Your task to perform on an android device: Add usb-a to the cart on walmart.com Image 0: 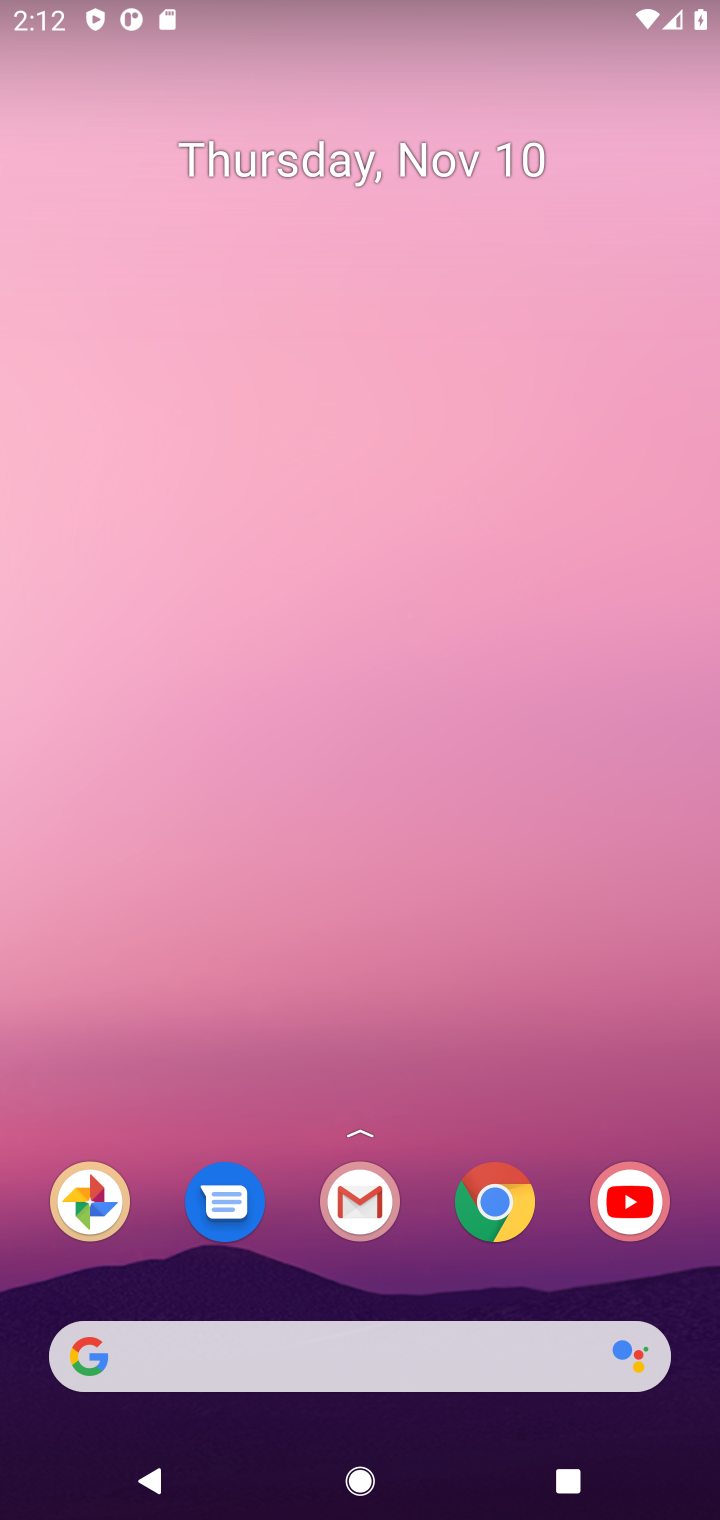
Step 0: click (377, 92)
Your task to perform on an android device: Add usb-a to the cart on walmart.com Image 1: 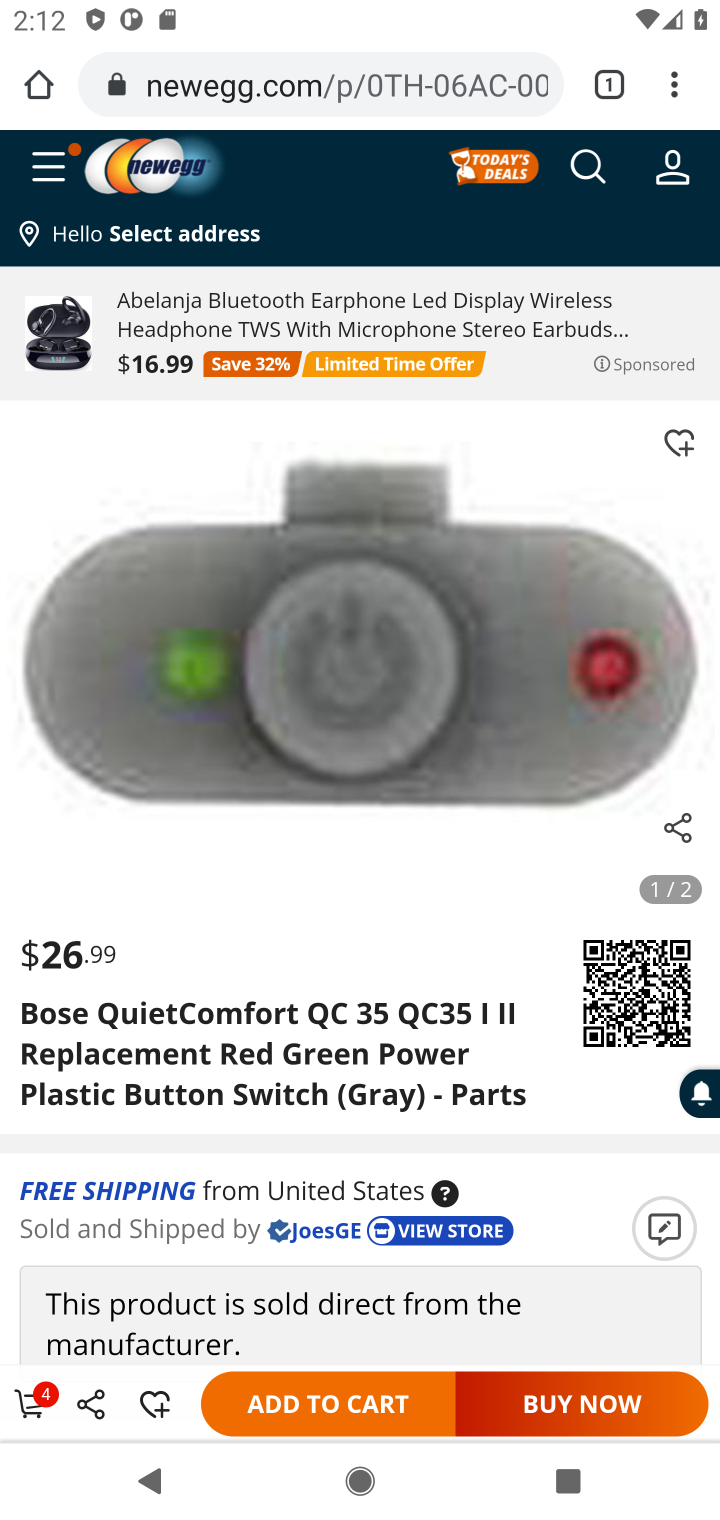
Step 1: click (418, 76)
Your task to perform on an android device: Add usb-a to the cart on walmart.com Image 2: 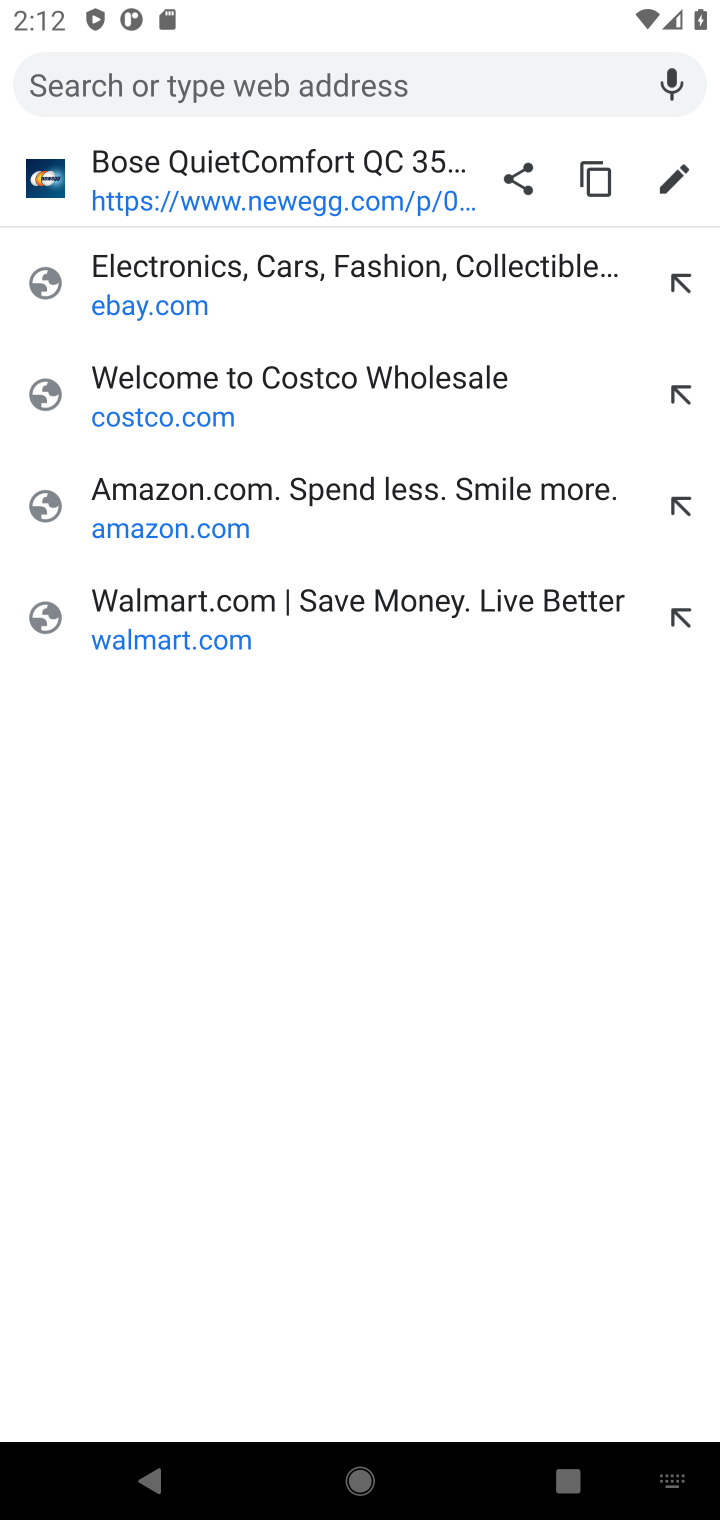
Step 2: click (343, 615)
Your task to perform on an android device: Add usb-a to the cart on walmart.com Image 3: 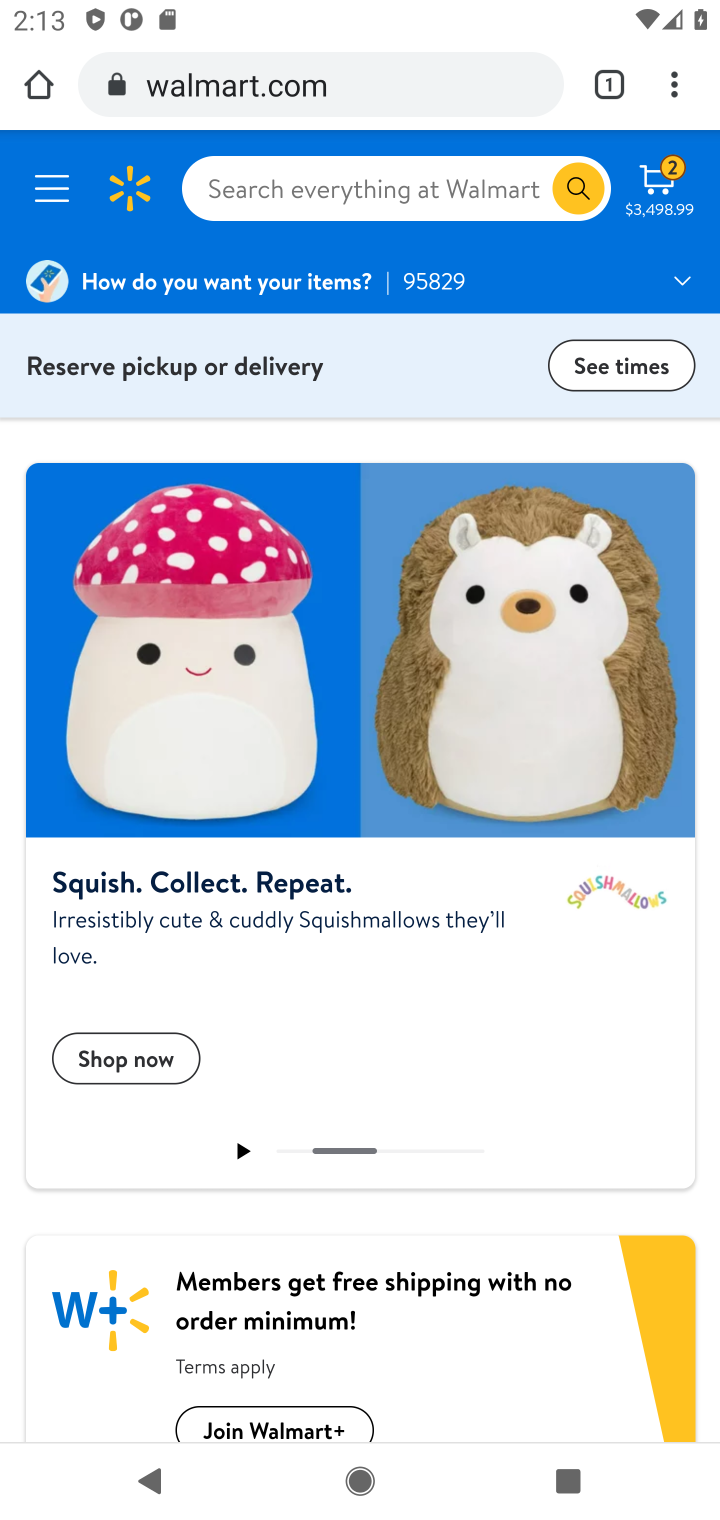
Step 3: click (512, 169)
Your task to perform on an android device: Add usb-a to the cart on walmart.com Image 4: 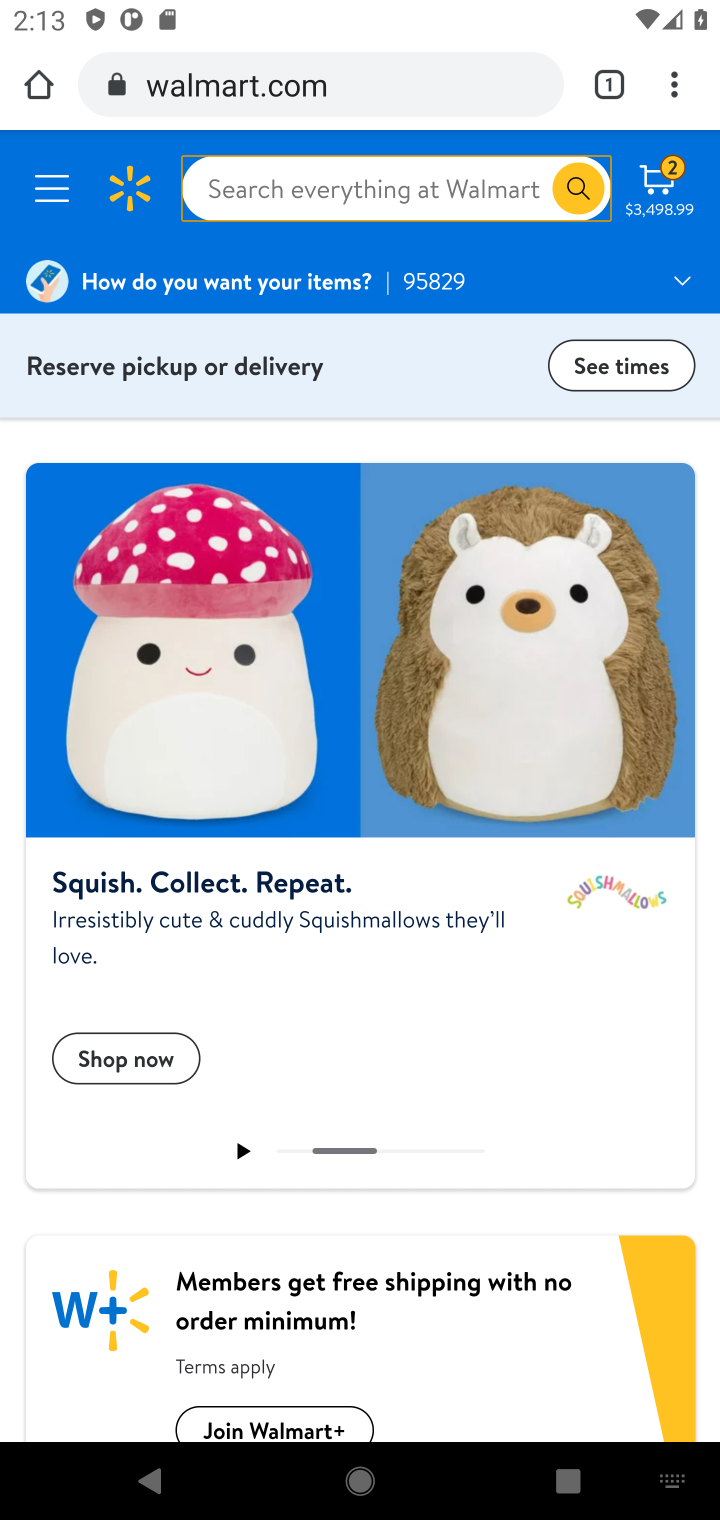
Step 4: type "usb-a "
Your task to perform on an android device: Add usb-a to the cart on walmart.com Image 5: 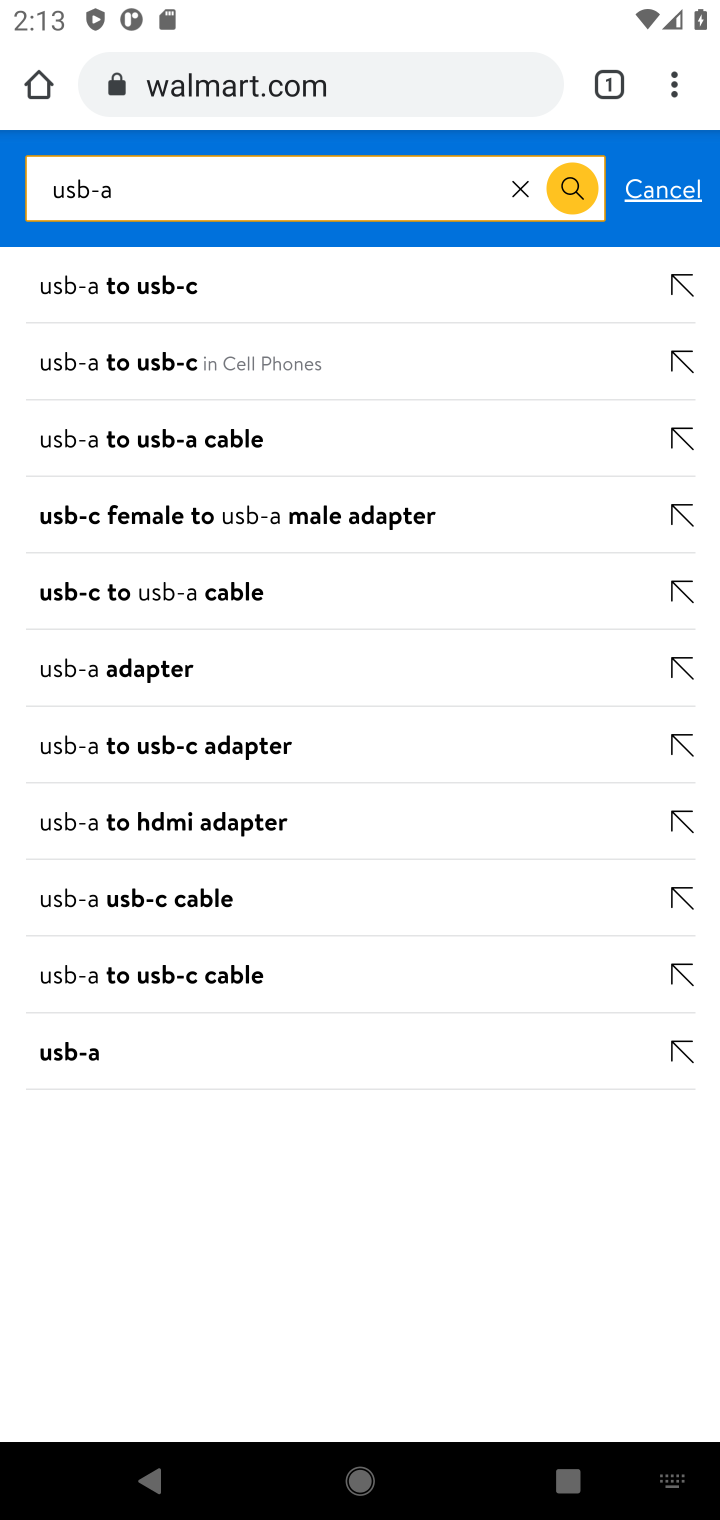
Step 5: click (91, 1037)
Your task to perform on an android device: Add usb-a to the cart on walmart.com Image 6: 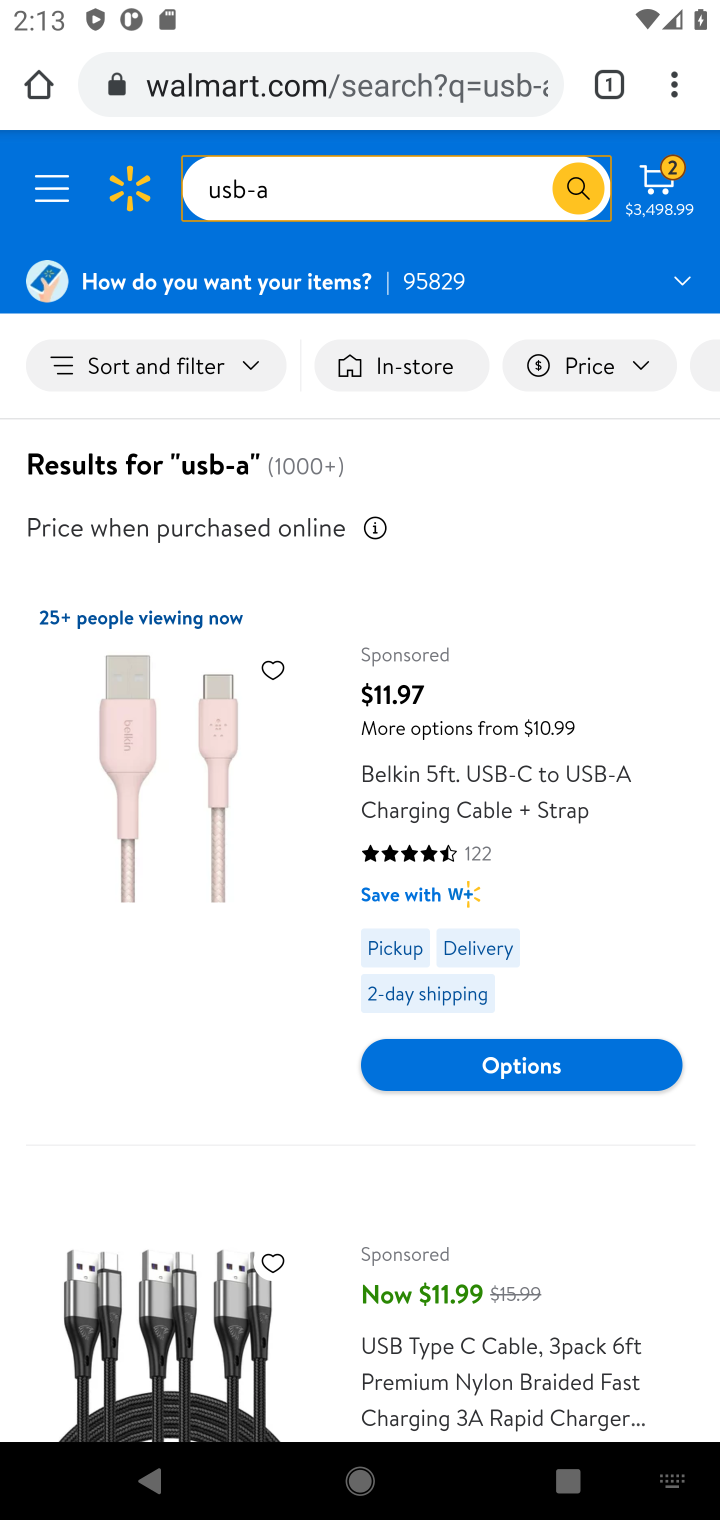
Step 6: click (198, 850)
Your task to perform on an android device: Add usb-a to the cart on walmart.com Image 7: 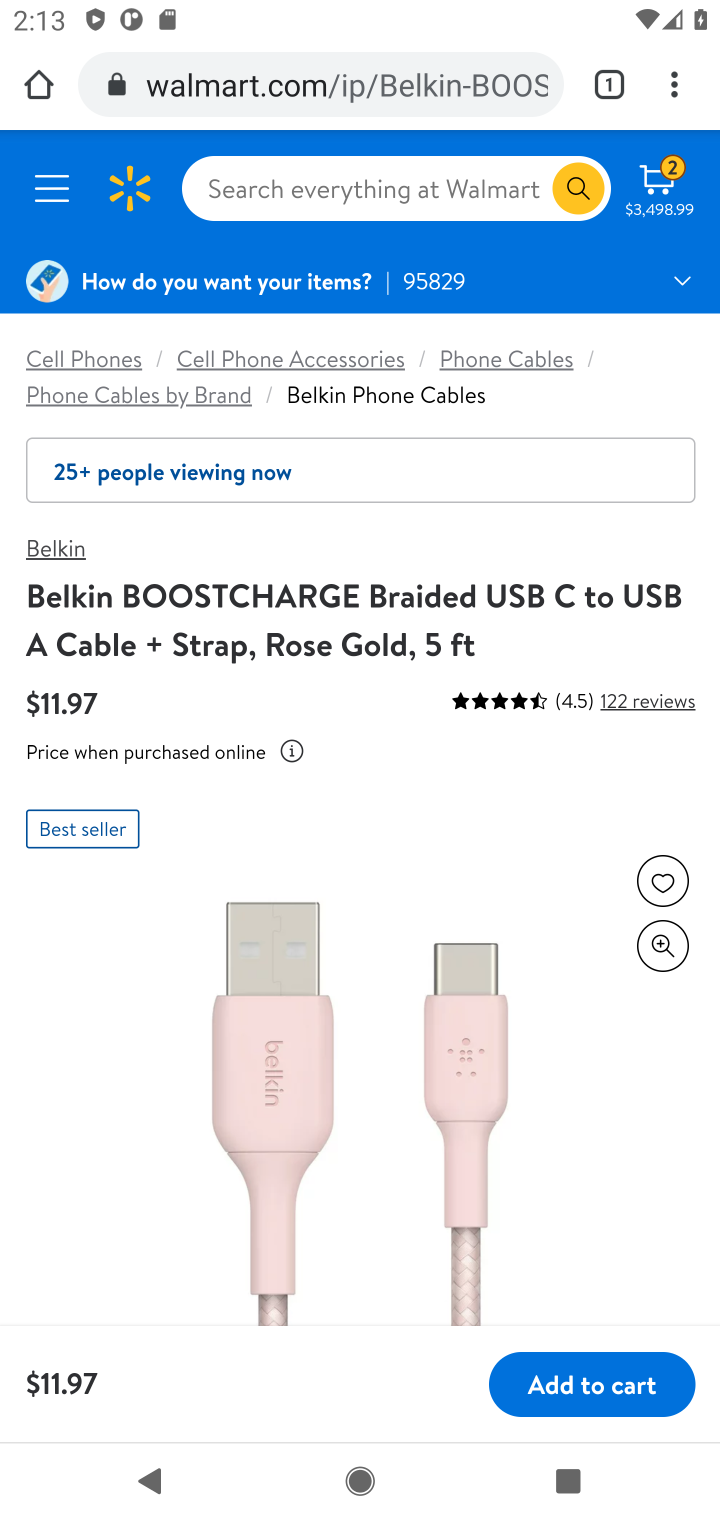
Step 7: click (599, 1396)
Your task to perform on an android device: Add usb-a to the cart on walmart.com Image 8: 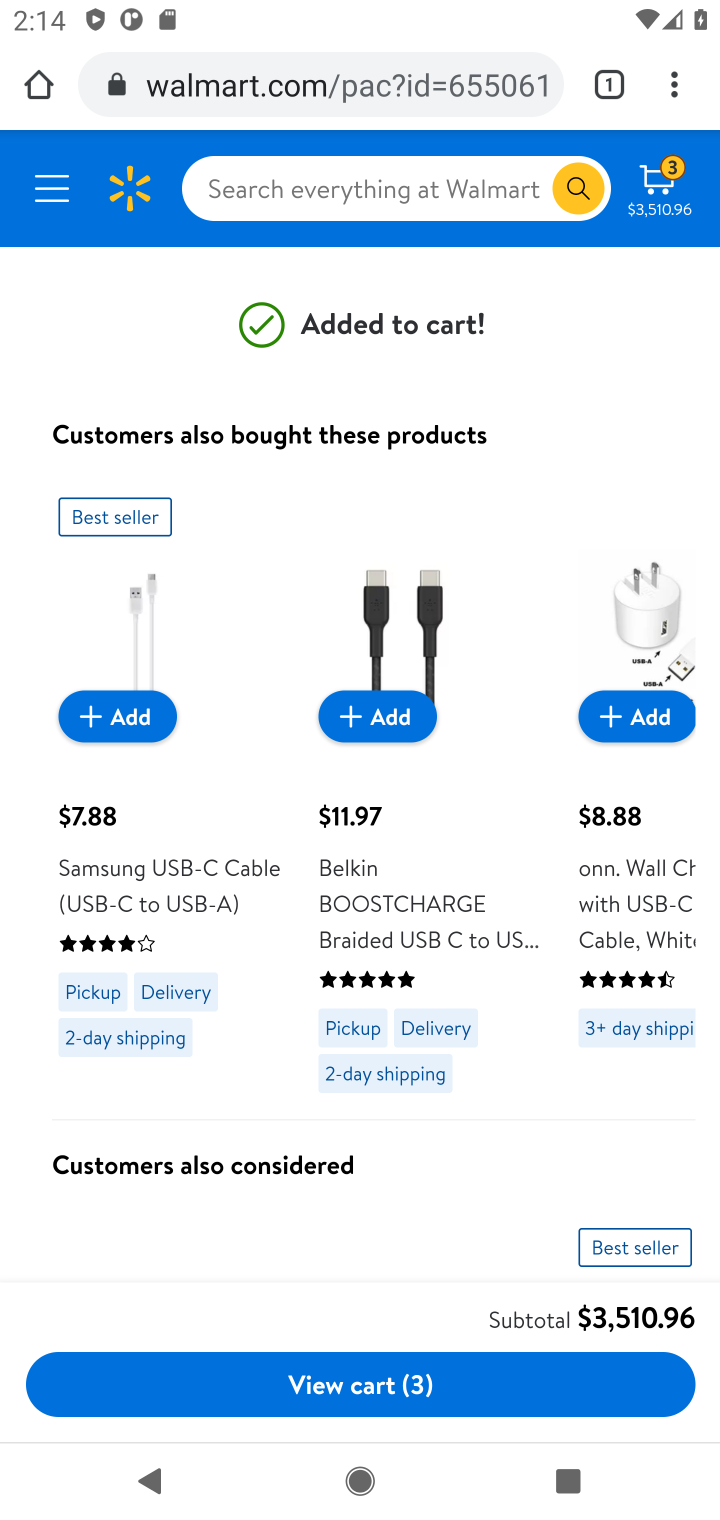
Step 8: task complete